Your task to perform on an android device: change the clock display to analog Image 0: 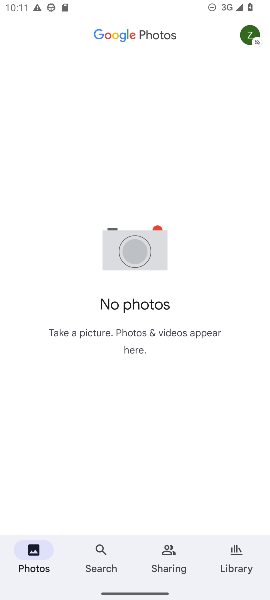
Step 0: press home button
Your task to perform on an android device: change the clock display to analog Image 1: 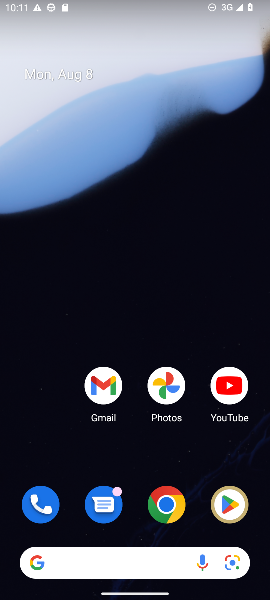
Step 1: drag from (122, 472) to (120, 169)
Your task to perform on an android device: change the clock display to analog Image 2: 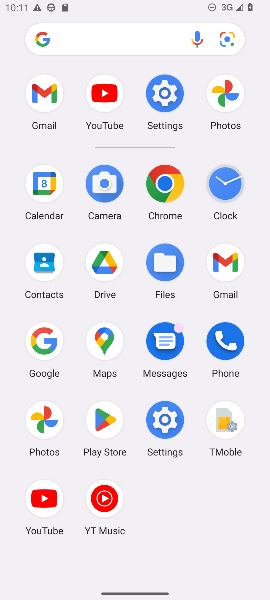
Step 2: click (230, 197)
Your task to perform on an android device: change the clock display to analog Image 3: 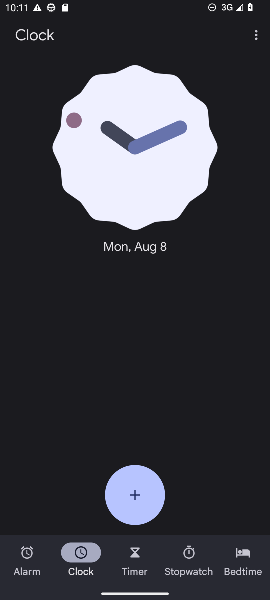
Step 3: click (260, 43)
Your task to perform on an android device: change the clock display to analog Image 4: 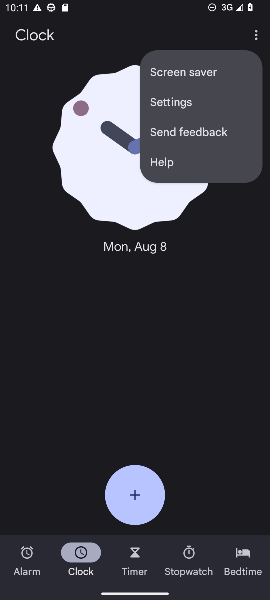
Step 4: click (184, 115)
Your task to perform on an android device: change the clock display to analog Image 5: 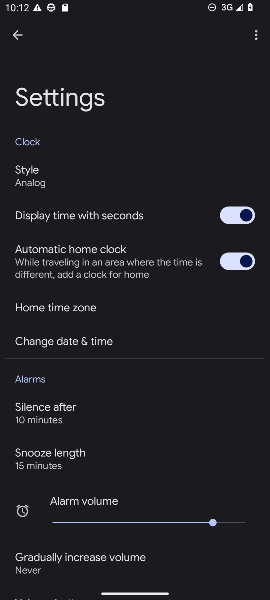
Step 5: task complete